Your task to perform on an android device: Go to Reddit.com Image 0: 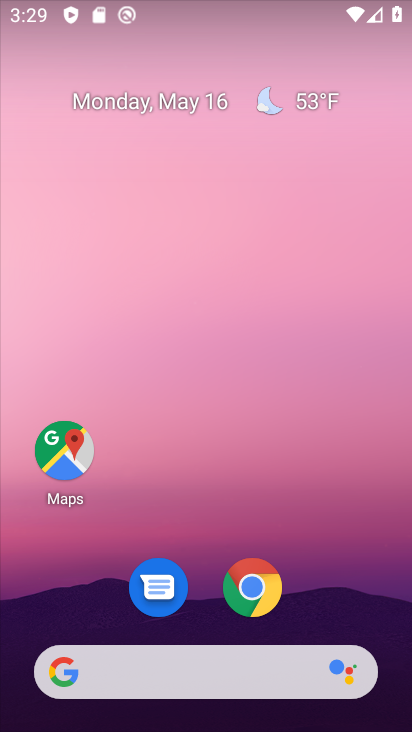
Step 0: drag from (105, 643) to (290, 104)
Your task to perform on an android device: Go to Reddit.com Image 1: 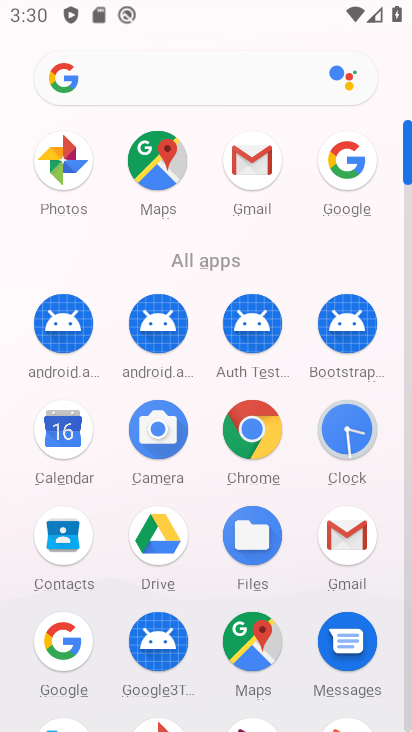
Step 1: drag from (161, 642) to (220, 434)
Your task to perform on an android device: Go to Reddit.com Image 2: 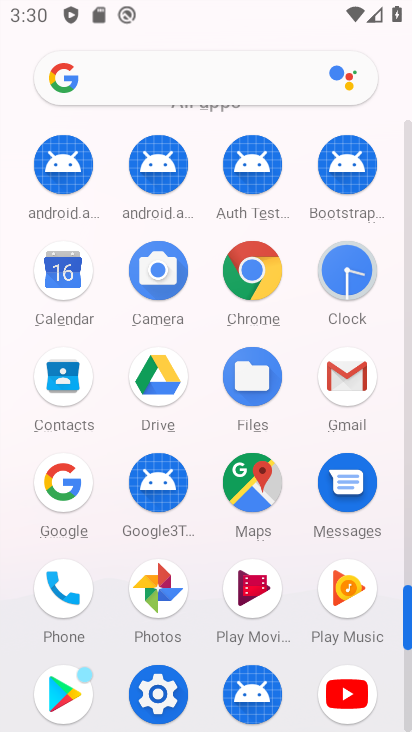
Step 2: click (59, 484)
Your task to perform on an android device: Go to Reddit.com Image 3: 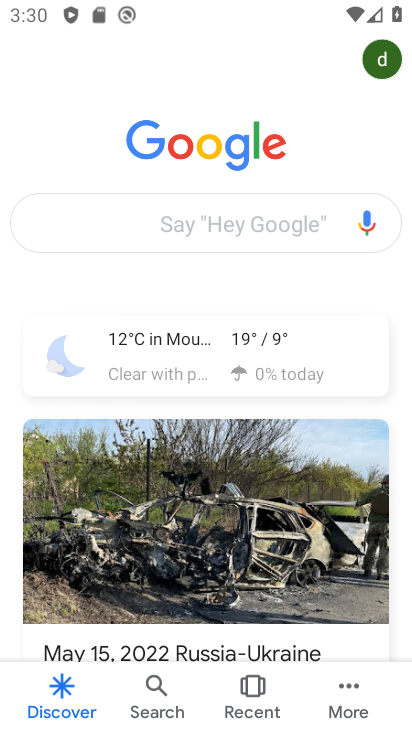
Step 3: click (159, 235)
Your task to perform on an android device: Go to Reddit.com Image 4: 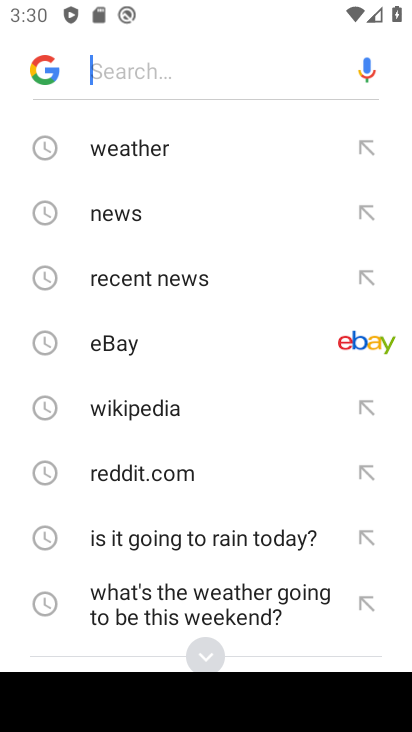
Step 4: type "Reddit.com"
Your task to perform on an android device: Go to Reddit.com Image 5: 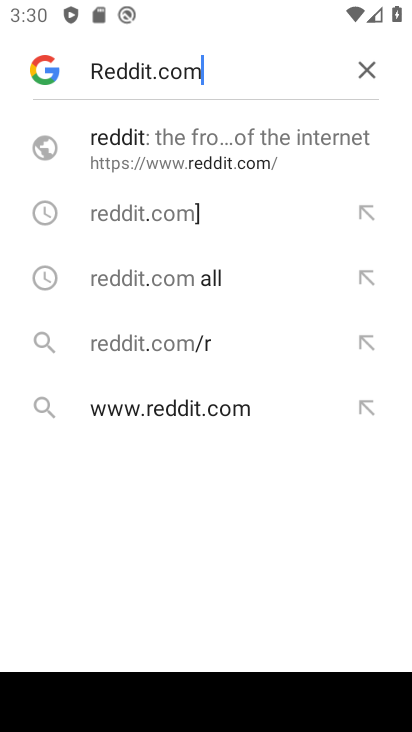
Step 5: click (194, 159)
Your task to perform on an android device: Go to Reddit.com Image 6: 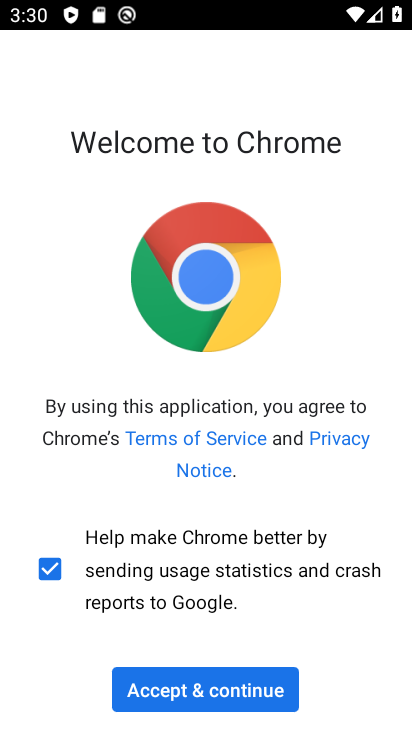
Step 6: click (253, 680)
Your task to perform on an android device: Go to Reddit.com Image 7: 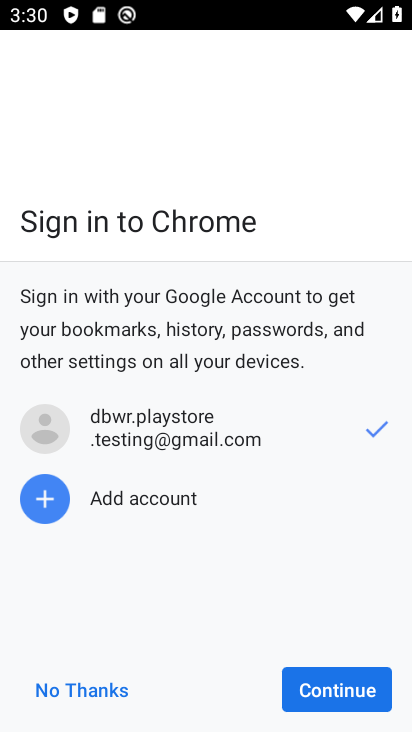
Step 7: click (344, 685)
Your task to perform on an android device: Go to Reddit.com Image 8: 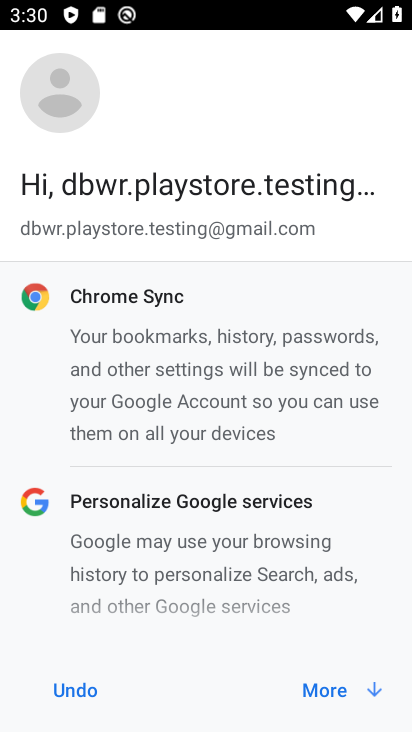
Step 8: click (343, 685)
Your task to perform on an android device: Go to Reddit.com Image 9: 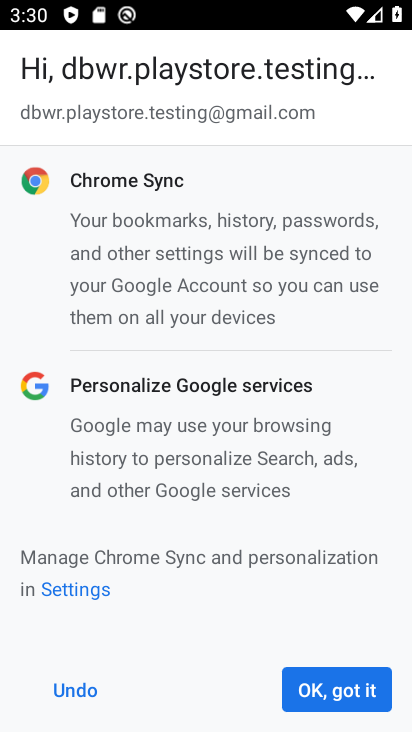
Step 9: click (343, 685)
Your task to perform on an android device: Go to Reddit.com Image 10: 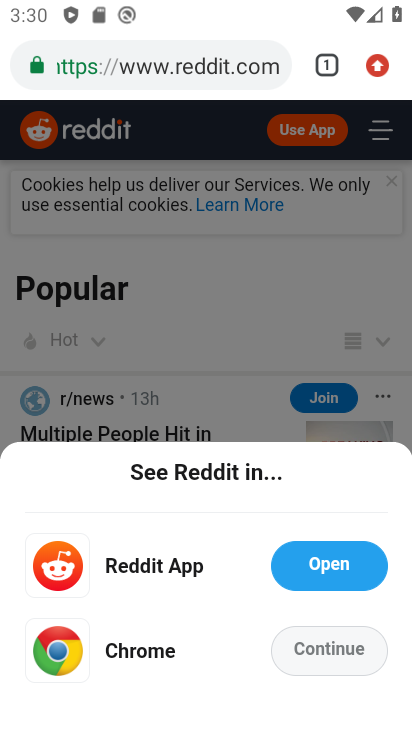
Step 10: click (355, 653)
Your task to perform on an android device: Go to Reddit.com Image 11: 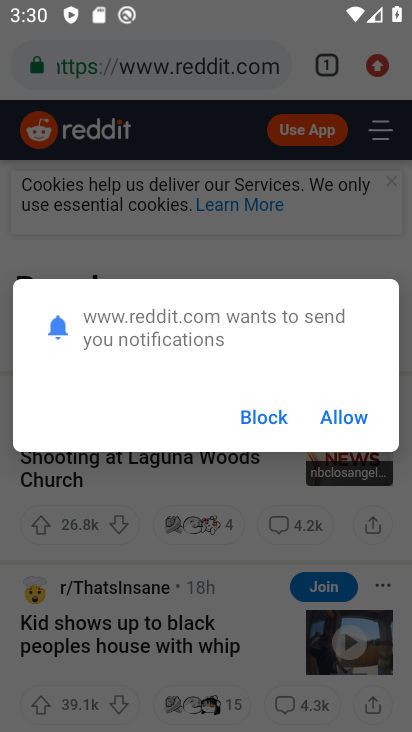
Step 11: click (348, 424)
Your task to perform on an android device: Go to Reddit.com Image 12: 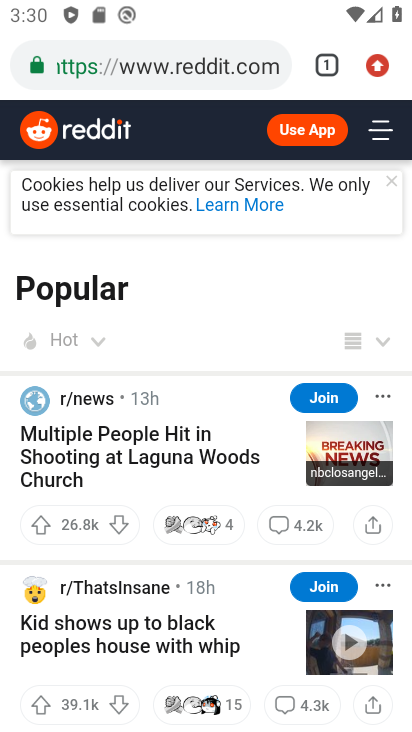
Step 12: task complete